Your task to perform on an android device: Go to Reddit.com Image 0: 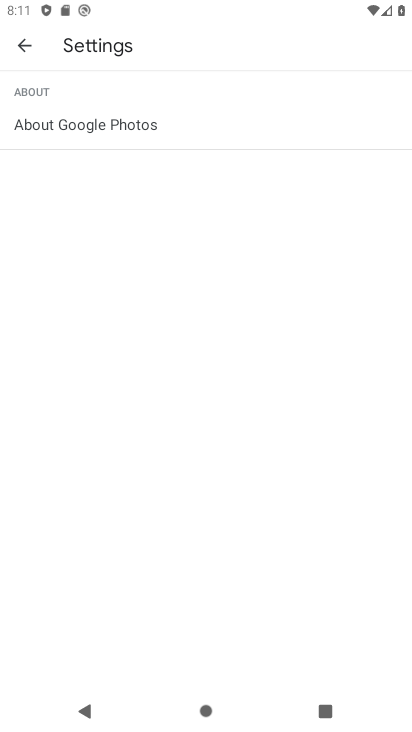
Step 0: press home button
Your task to perform on an android device: Go to Reddit.com Image 1: 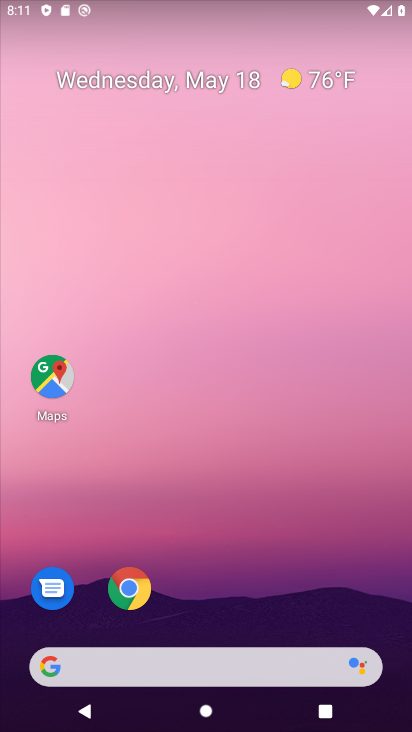
Step 1: click (116, 587)
Your task to perform on an android device: Go to Reddit.com Image 2: 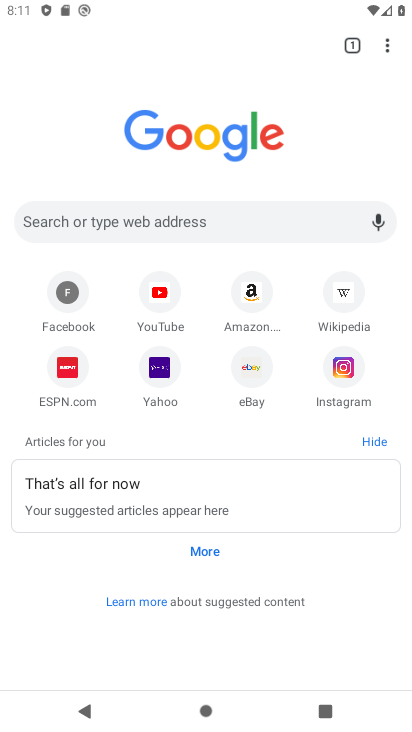
Step 2: click (181, 220)
Your task to perform on an android device: Go to Reddit.com Image 3: 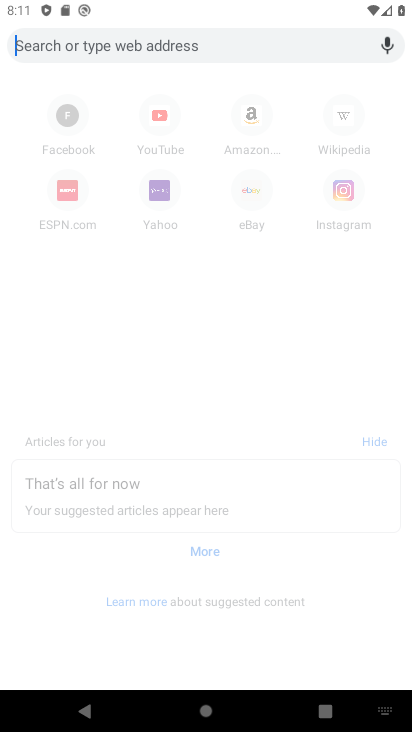
Step 3: type "reddit.com"
Your task to perform on an android device: Go to Reddit.com Image 4: 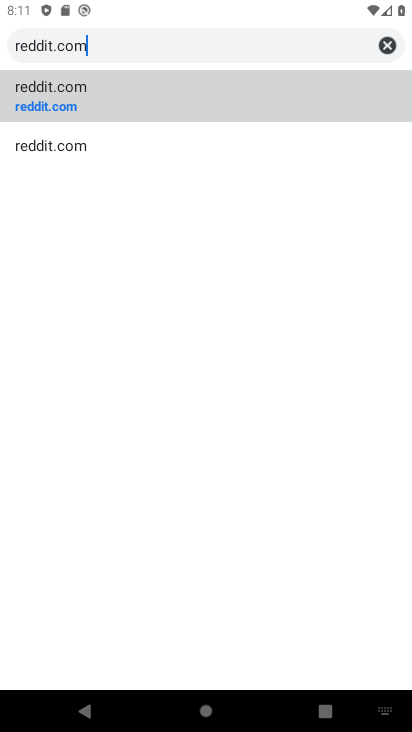
Step 4: click (164, 103)
Your task to perform on an android device: Go to Reddit.com Image 5: 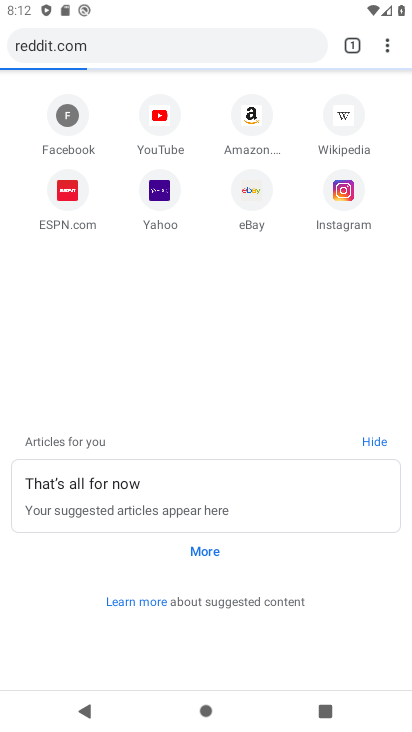
Step 5: task complete